Your task to perform on an android device: change the clock display to analog Image 0: 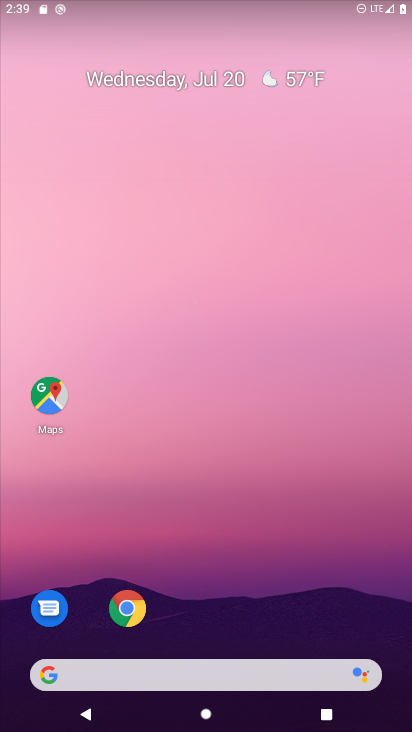
Step 0: drag from (246, 701) to (215, 315)
Your task to perform on an android device: change the clock display to analog Image 1: 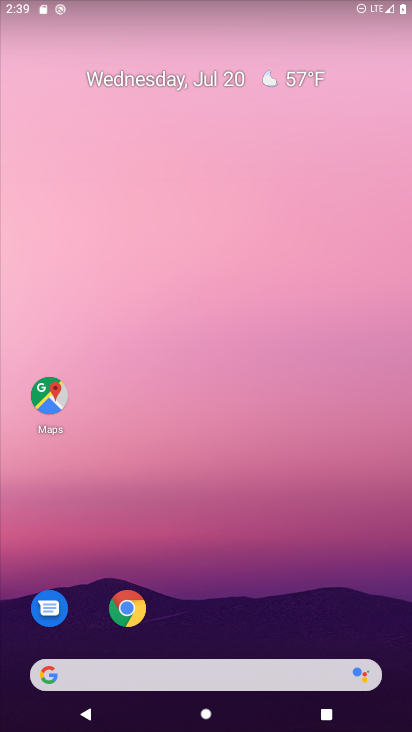
Step 1: drag from (254, 712) to (210, 191)
Your task to perform on an android device: change the clock display to analog Image 2: 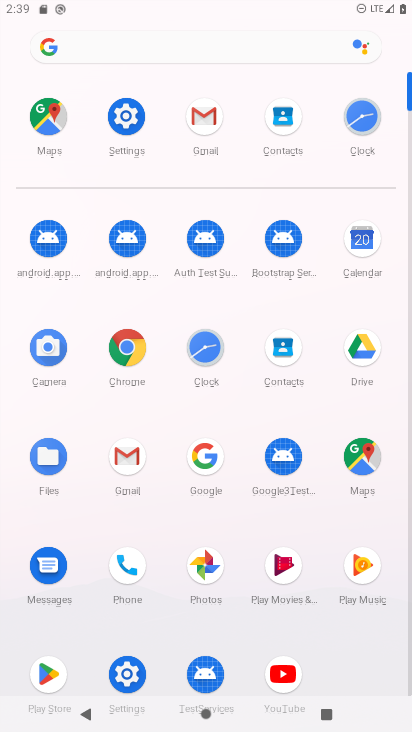
Step 2: click (213, 349)
Your task to perform on an android device: change the clock display to analog Image 3: 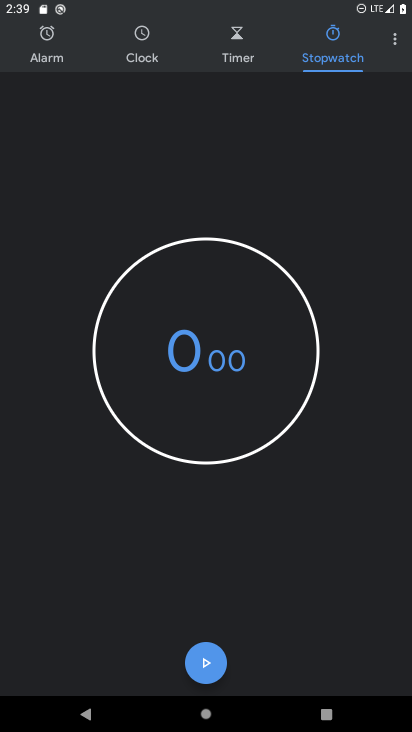
Step 3: click (396, 47)
Your task to perform on an android device: change the clock display to analog Image 4: 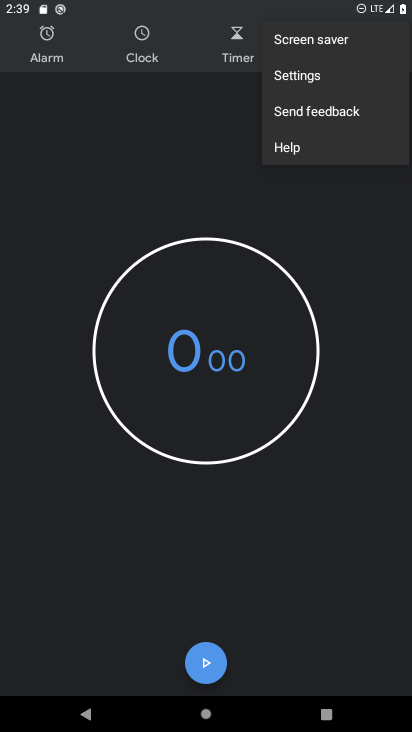
Step 4: click (297, 75)
Your task to perform on an android device: change the clock display to analog Image 5: 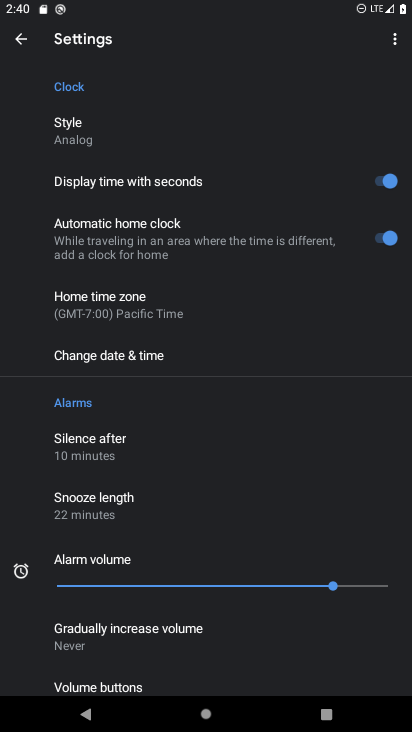
Step 5: task complete